Your task to perform on an android device: set the timer Image 0: 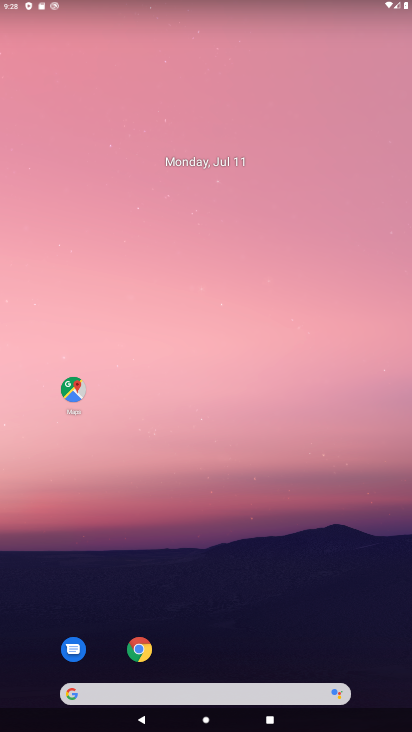
Step 0: drag from (190, 649) to (218, 13)
Your task to perform on an android device: set the timer Image 1: 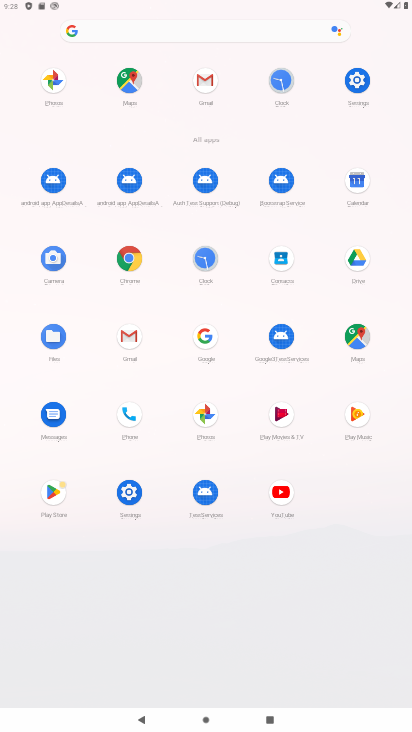
Step 1: click (206, 266)
Your task to perform on an android device: set the timer Image 2: 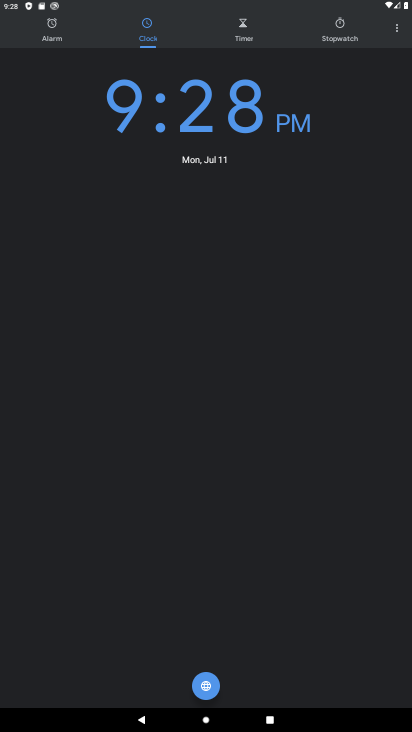
Step 2: click (239, 32)
Your task to perform on an android device: set the timer Image 3: 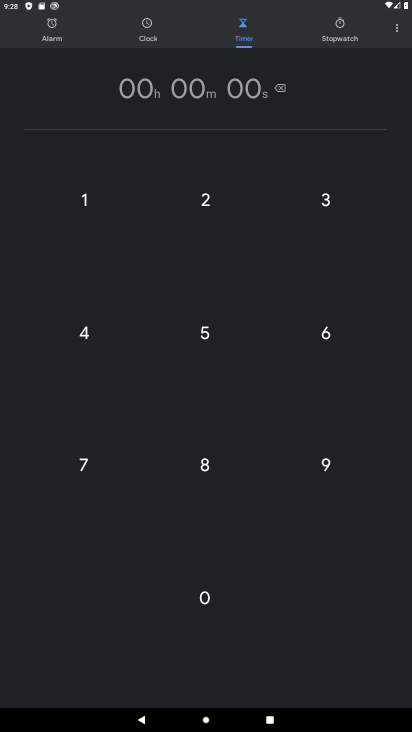
Step 3: click (202, 333)
Your task to perform on an android device: set the timer Image 4: 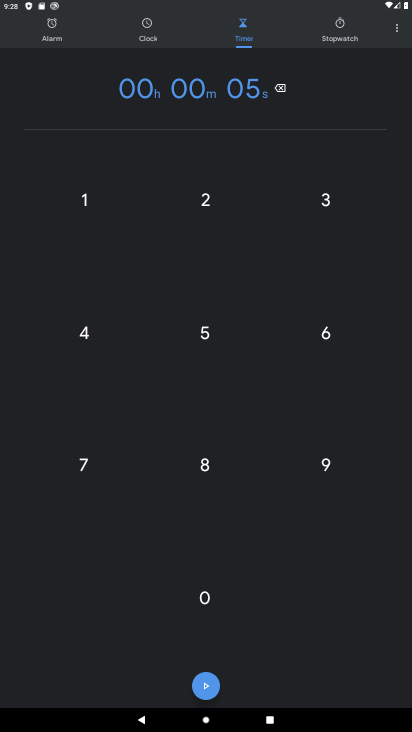
Step 4: click (91, 340)
Your task to perform on an android device: set the timer Image 5: 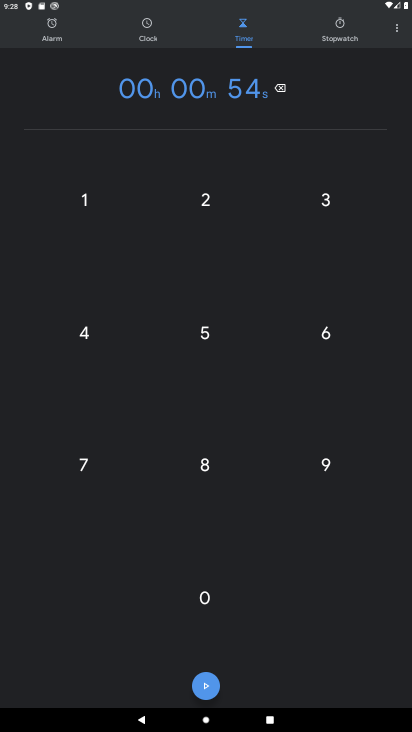
Step 5: click (324, 462)
Your task to perform on an android device: set the timer Image 6: 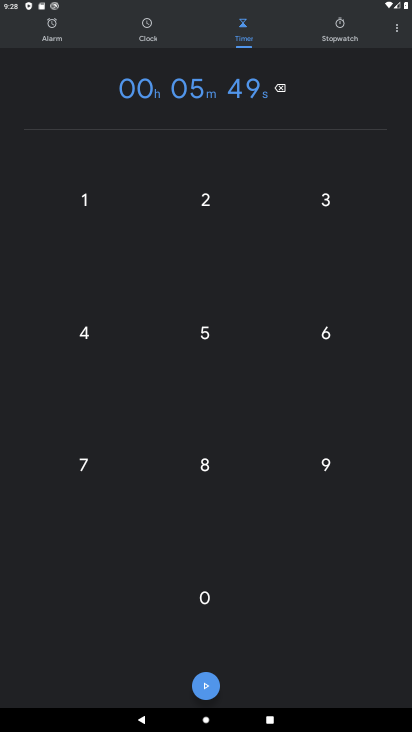
Step 6: click (207, 690)
Your task to perform on an android device: set the timer Image 7: 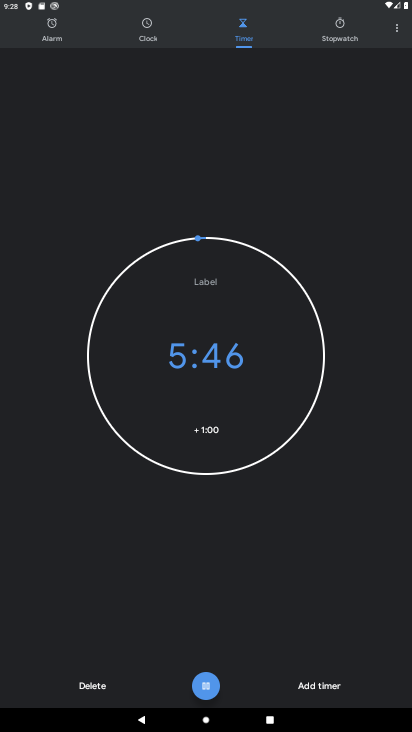
Step 7: task complete